Your task to perform on an android device: Open privacy settings Image 0: 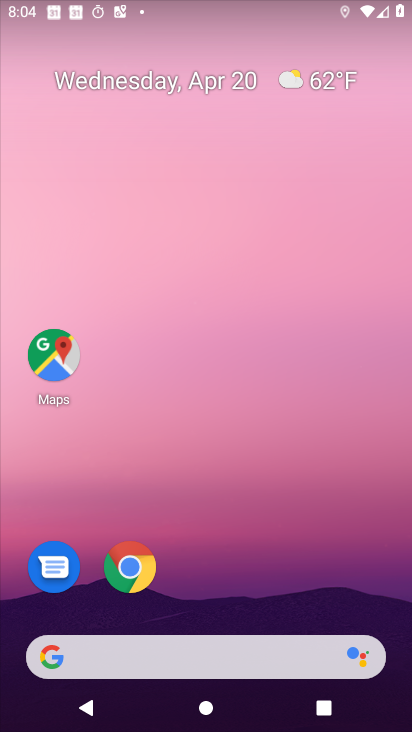
Step 0: drag from (323, 582) to (282, 128)
Your task to perform on an android device: Open privacy settings Image 1: 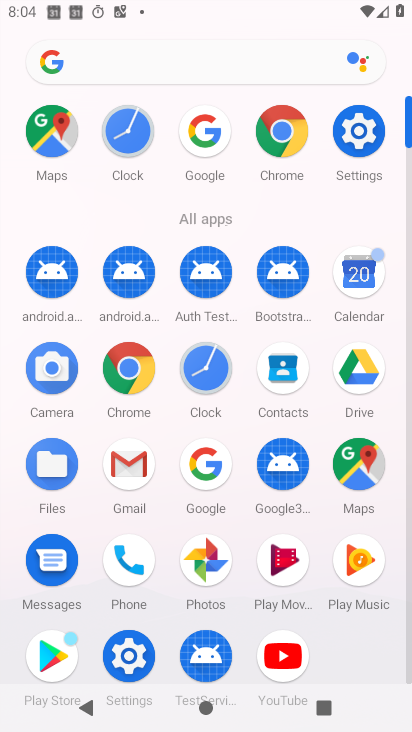
Step 1: click (369, 121)
Your task to perform on an android device: Open privacy settings Image 2: 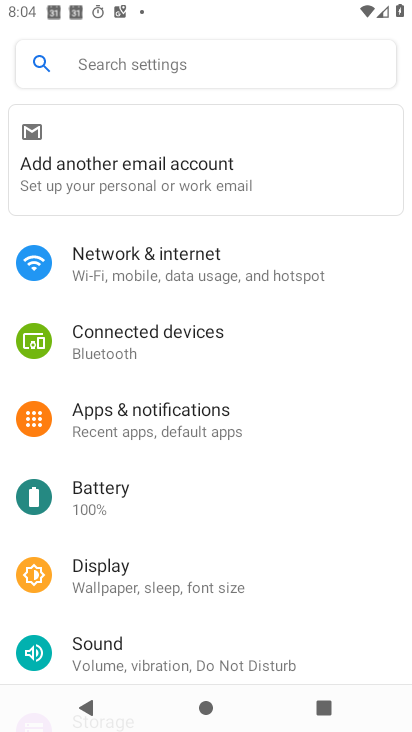
Step 2: drag from (337, 636) to (345, 275)
Your task to perform on an android device: Open privacy settings Image 3: 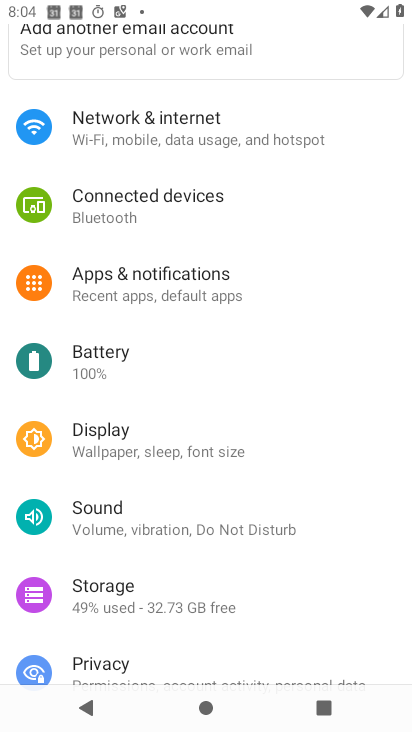
Step 3: click (100, 665)
Your task to perform on an android device: Open privacy settings Image 4: 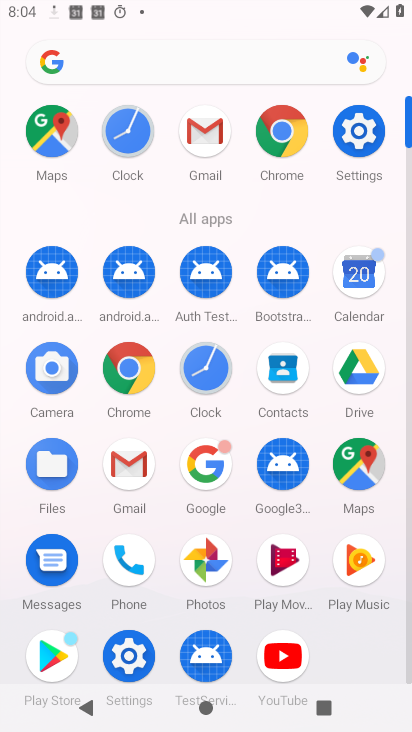
Step 4: click (358, 135)
Your task to perform on an android device: Open privacy settings Image 5: 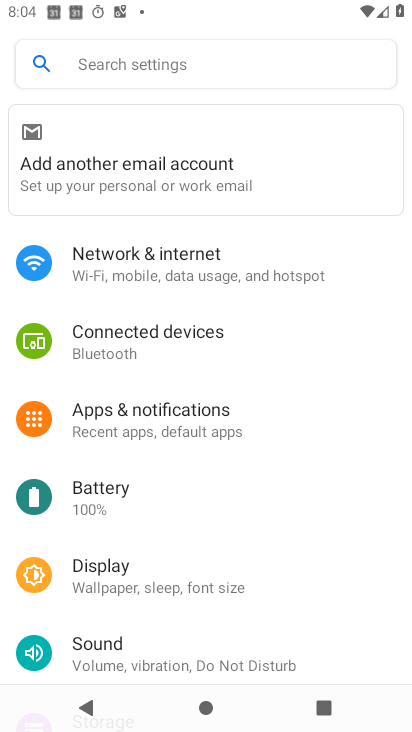
Step 5: drag from (372, 647) to (359, 154)
Your task to perform on an android device: Open privacy settings Image 6: 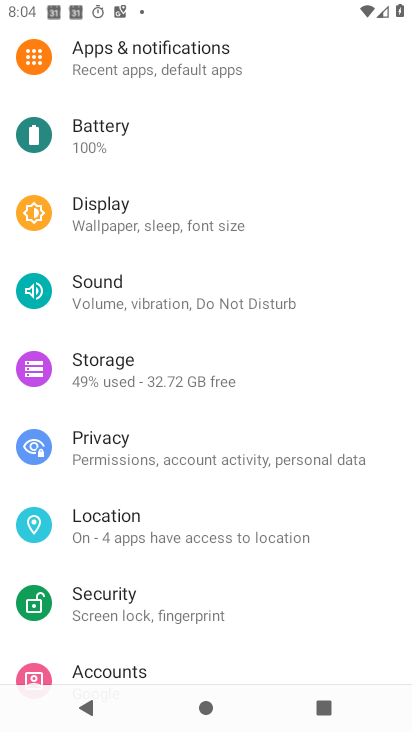
Step 6: click (102, 444)
Your task to perform on an android device: Open privacy settings Image 7: 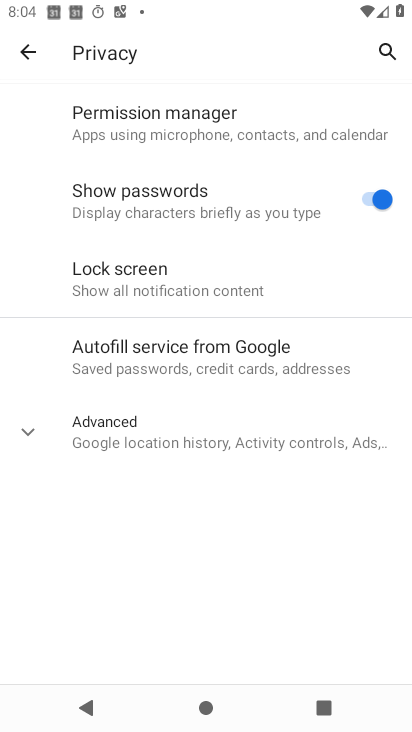
Step 7: task complete